Your task to perform on an android device: toggle sleep mode Image 0: 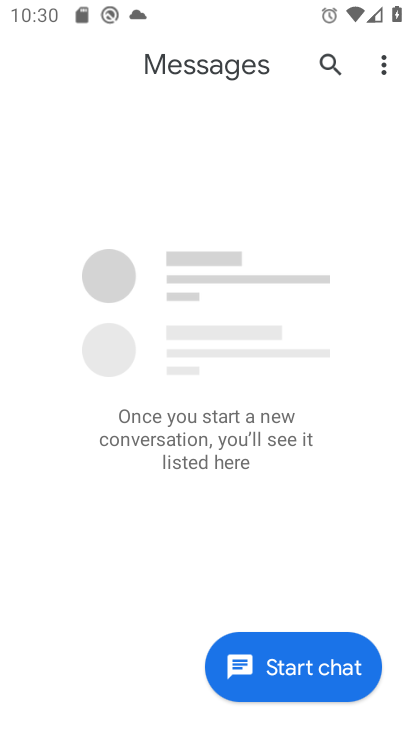
Step 0: click (315, 656)
Your task to perform on an android device: toggle sleep mode Image 1: 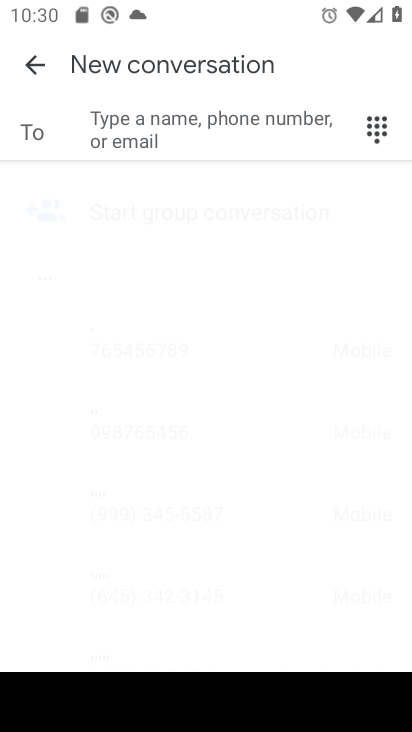
Step 1: press back button
Your task to perform on an android device: toggle sleep mode Image 2: 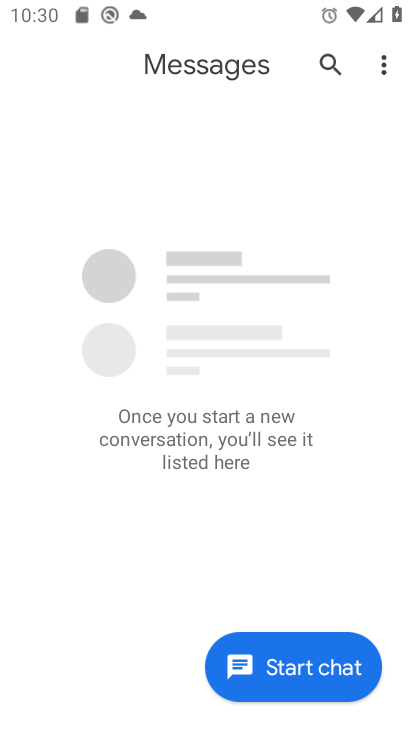
Step 2: press home button
Your task to perform on an android device: toggle sleep mode Image 3: 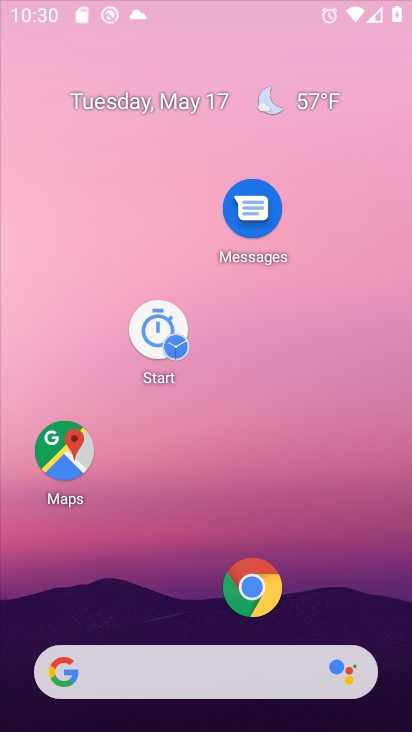
Step 3: drag from (343, 671) to (240, 104)
Your task to perform on an android device: toggle sleep mode Image 4: 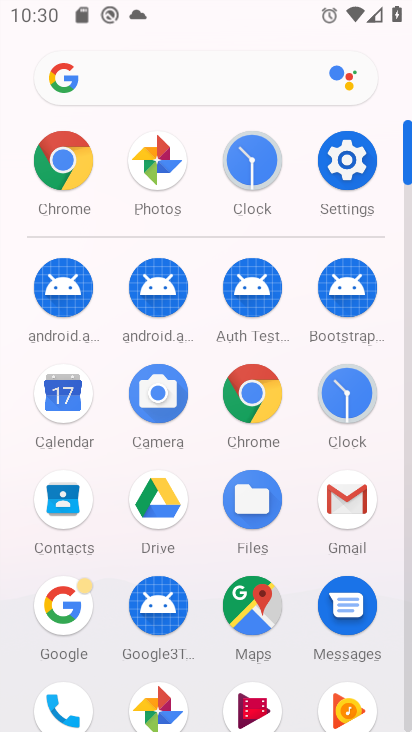
Step 4: click (354, 154)
Your task to perform on an android device: toggle sleep mode Image 5: 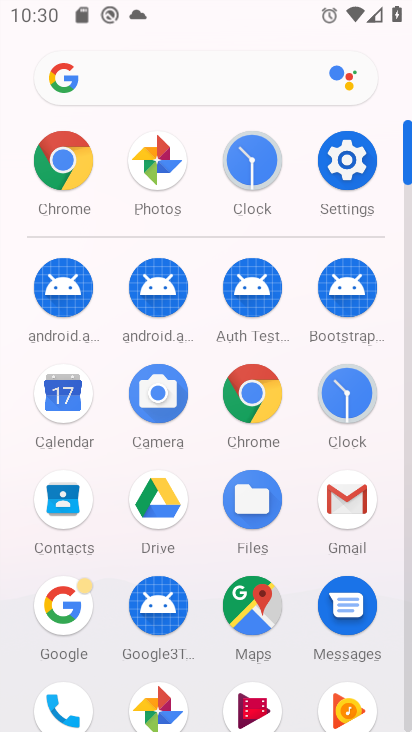
Step 5: click (354, 154)
Your task to perform on an android device: toggle sleep mode Image 6: 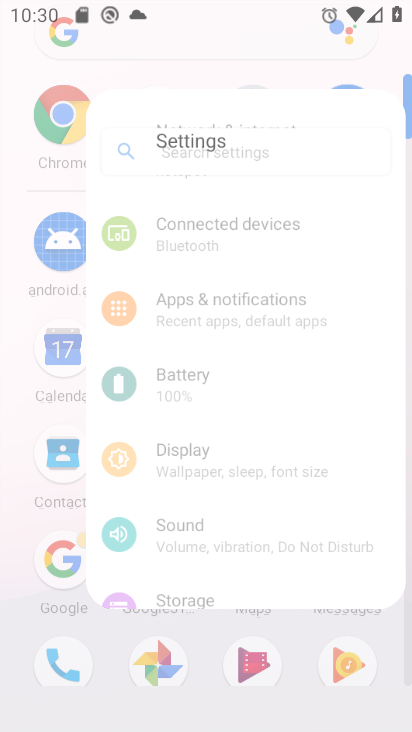
Step 6: click (354, 154)
Your task to perform on an android device: toggle sleep mode Image 7: 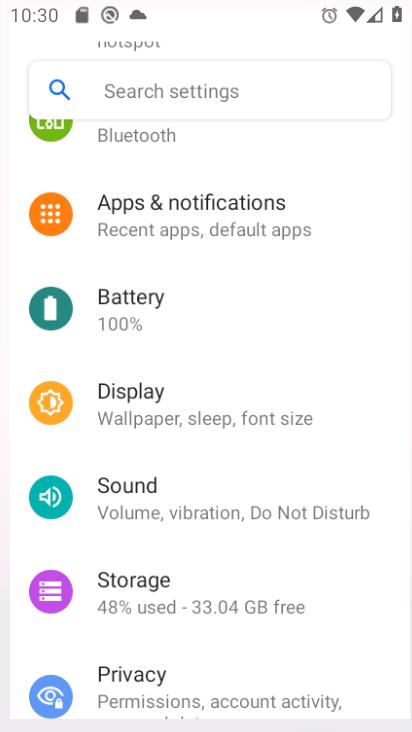
Step 7: click (354, 154)
Your task to perform on an android device: toggle sleep mode Image 8: 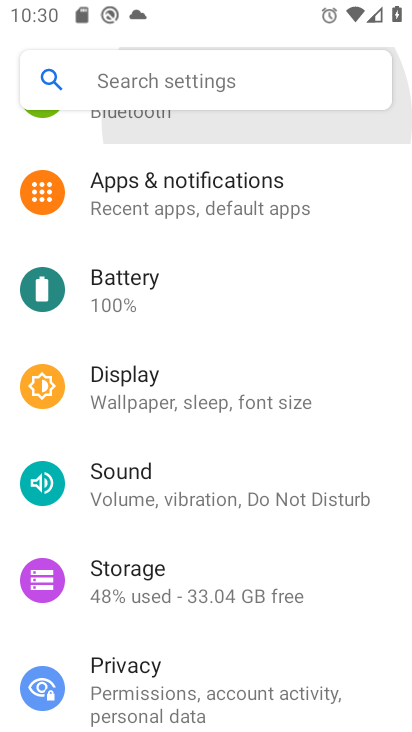
Step 8: click (354, 154)
Your task to perform on an android device: toggle sleep mode Image 9: 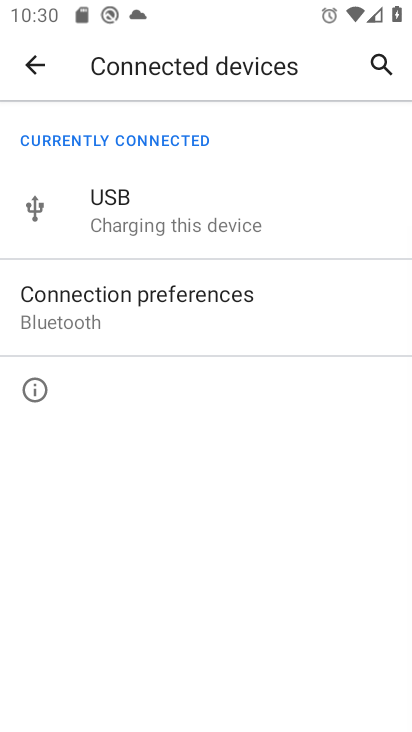
Step 9: click (23, 63)
Your task to perform on an android device: toggle sleep mode Image 10: 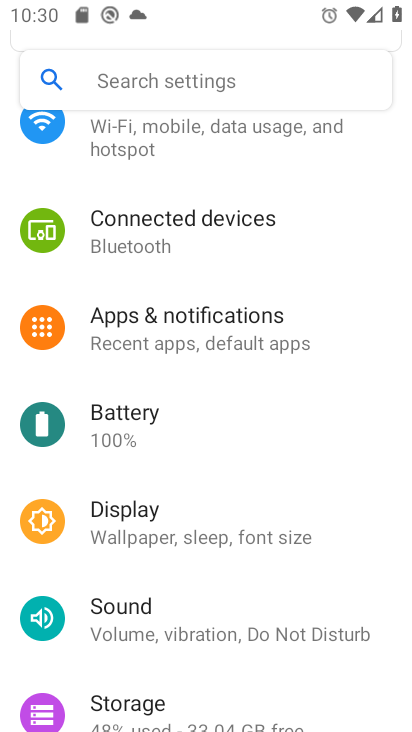
Step 10: click (169, 521)
Your task to perform on an android device: toggle sleep mode Image 11: 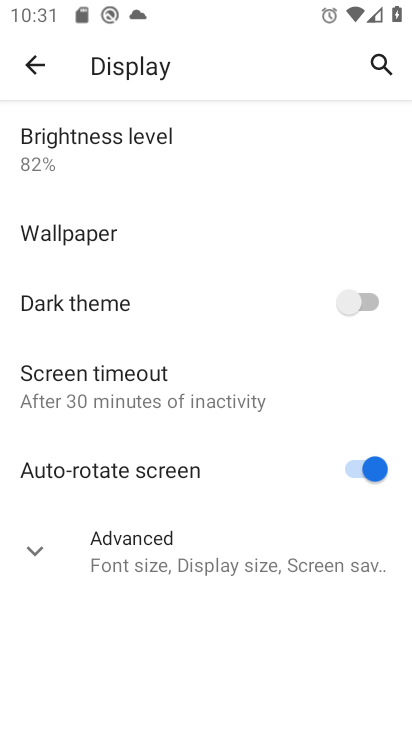
Step 11: click (129, 387)
Your task to perform on an android device: toggle sleep mode Image 12: 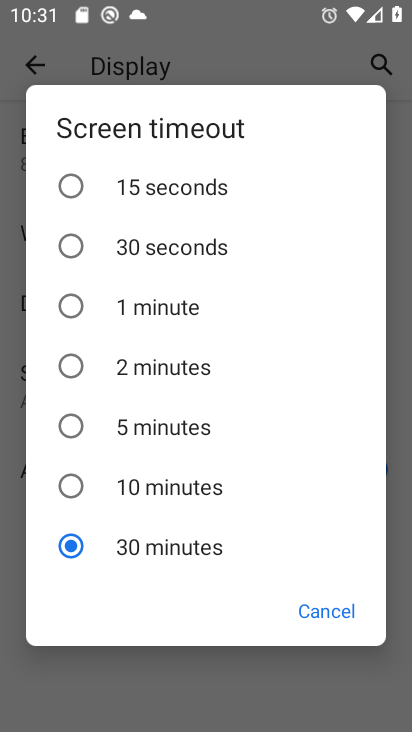
Step 12: click (117, 360)
Your task to perform on an android device: toggle sleep mode Image 13: 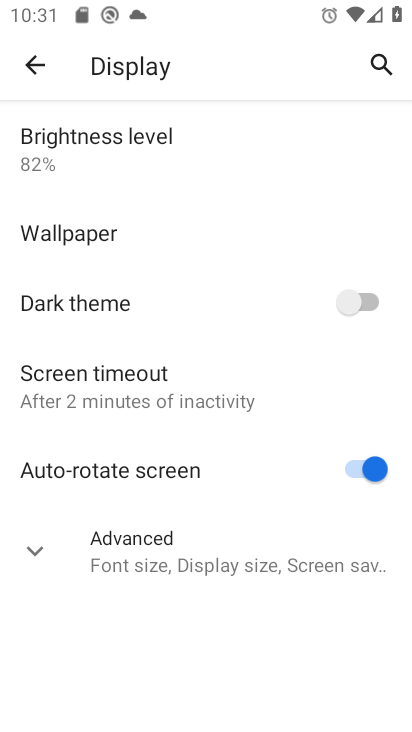
Step 13: task complete